Your task to perform on an android device: Search for pizza restaurants on Maps Image 0: 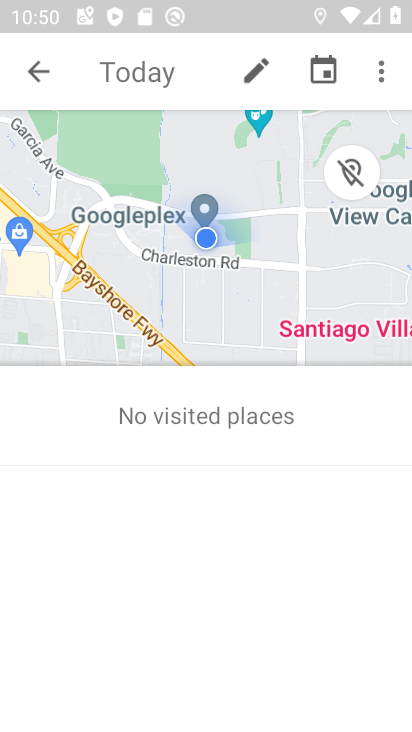
Step 0: press home button
Your task to perform on an android device: Search for pizza restaurants on Maps Image 1: 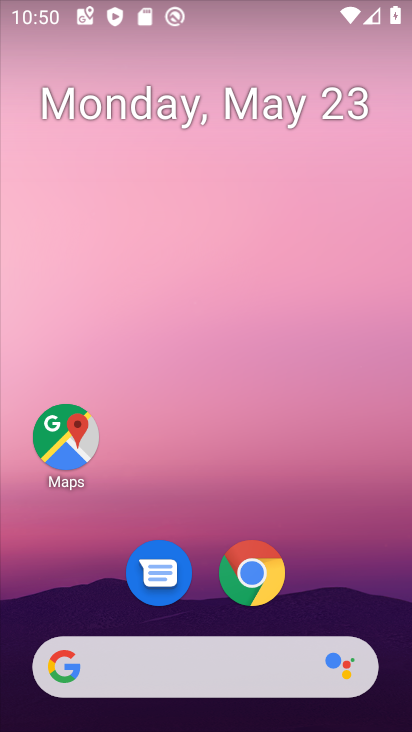
Step 1: drag from (267, 635) to (275, 278)
Your task to perform on an android device: Search for pizza restaurants on Maps Image 2: 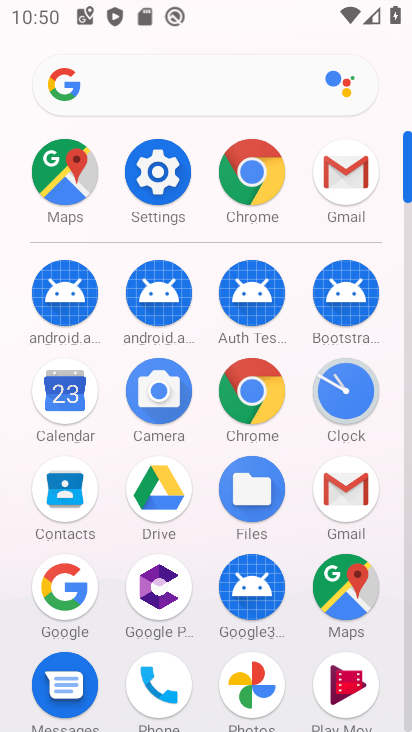
Step 2: click (346, 600)
Your task to perform on an android device: Search for pizza restaurants on Maps Image 3: 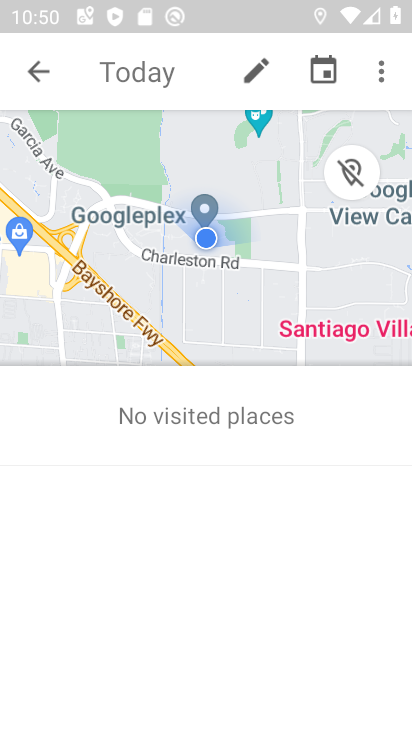
Step 3: click (38, 73)
Your task to perform on an android device: Search for pizza restaurants on Maps Image 4: 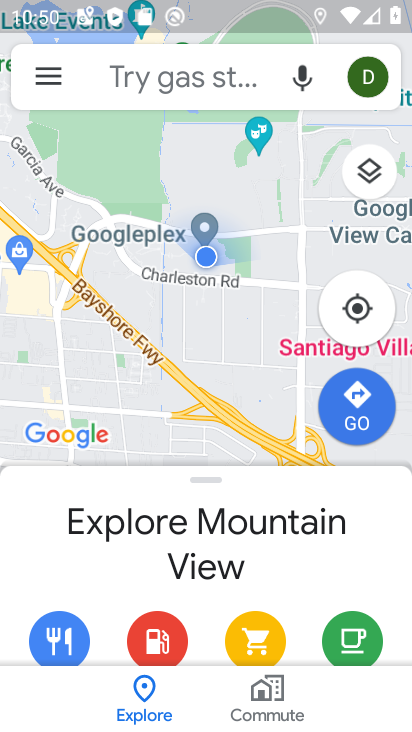
Step 4: click (176, 79)
Your task to perform on an android device: Search for pizza restaurants on Maps Image 5: 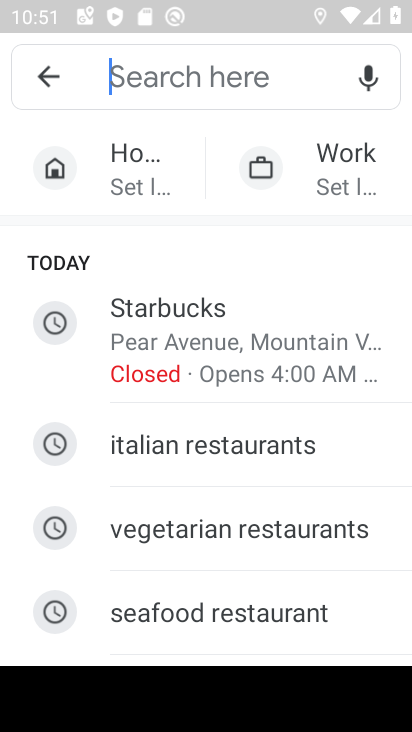
Step 5: click (176, 79)
Your task to perform on an android device: Search for pizza restaurants on Maps Image 6: 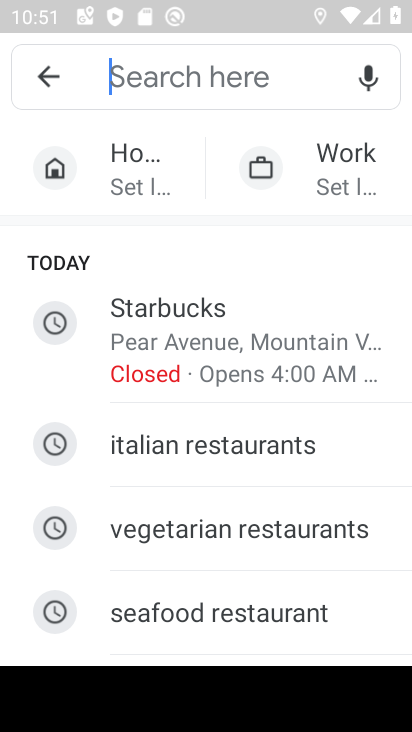
Step 6: type "pizza"
Your task to perform on an android device: Search for pizza restaurants on Maps Image 7: 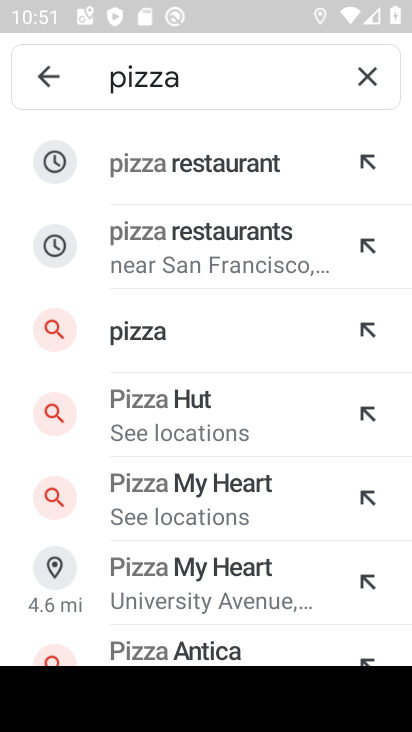
Step 7: click (253, 161)
Your task to perform on an android device: Search for pizza restaurants on Maps Image 8: 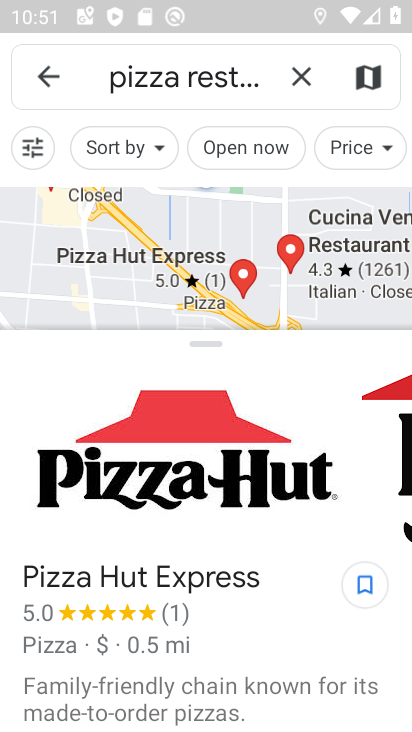
Step 8: task complete